Your task to perform on an android device: find photos in the google photos app Image 0: 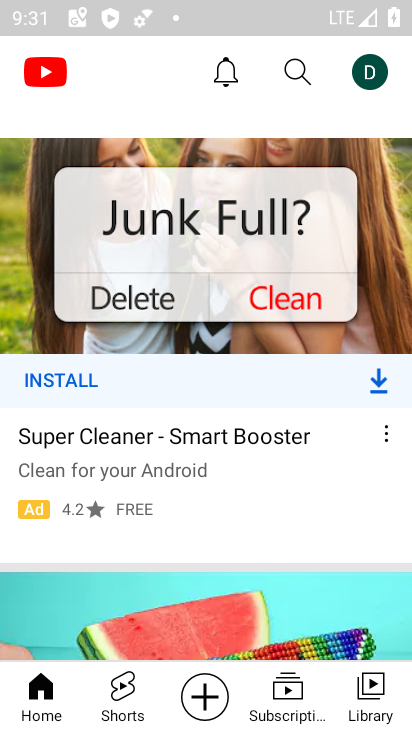
Step 0: press home button
Your task to perform on an android device: find photos in the google photos app Image 1: 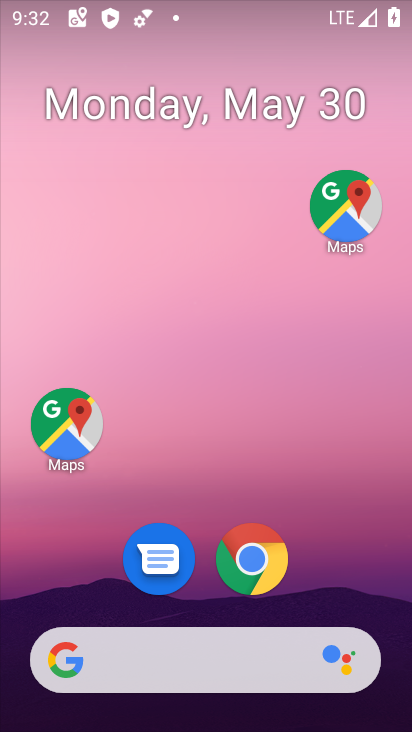
Step 1: drag from (310, 587) to (294, 169)
Your task to perform on an android device: find photos in the google photos app Image 2: 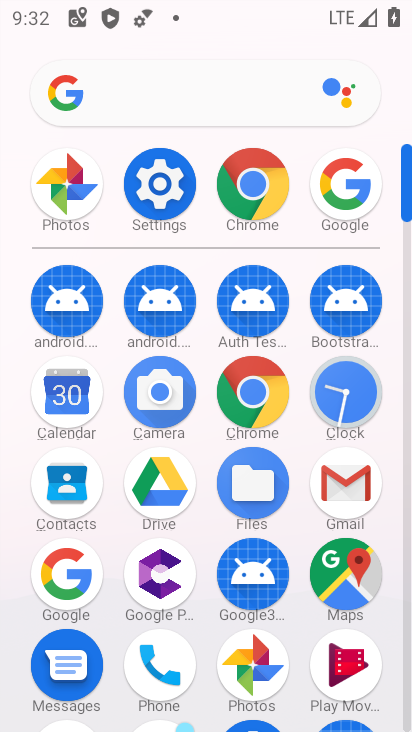
Step 2: click (249, 662)
Your task to perform on an android device: find photos in the google photos app Image 3: 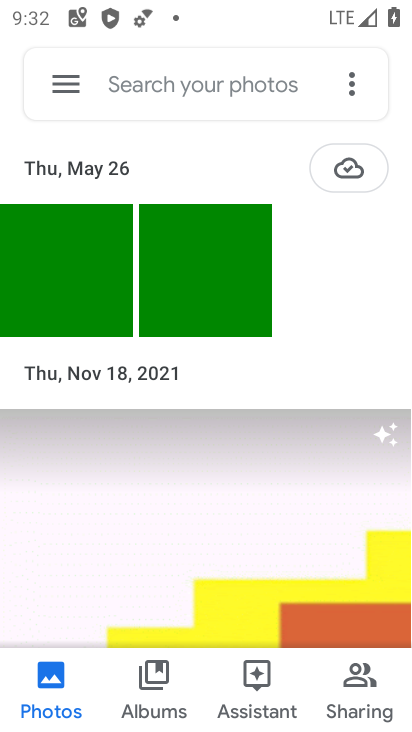
Step 3: task complete